Your task to perform on an android device: Open the stopwatch Image 0: 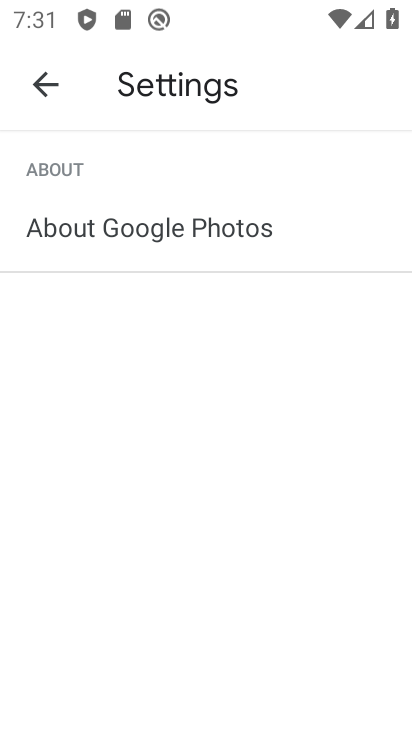
Step 0: press home button
Your task to perform on an android device: Open the stopwatch Image 1: 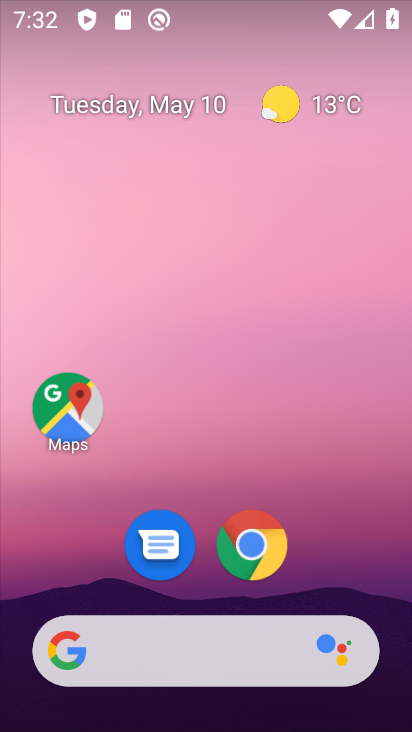
Step 1: drag from (197, 429) to (192, 231)
Your task to perform on an android device: Open the stopwatch Image 2: 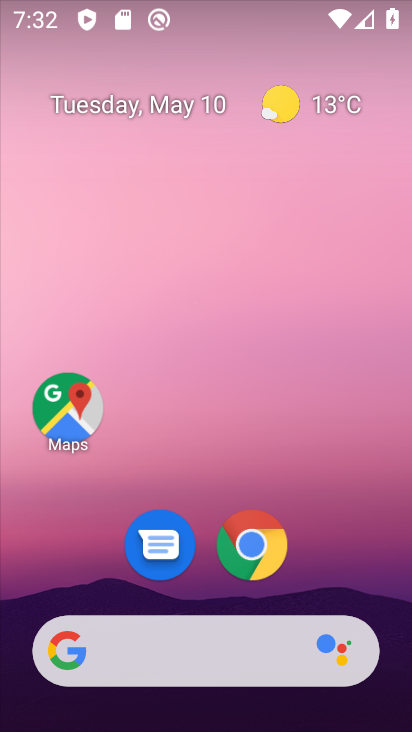
Step 2: drag from (208, 494) to (209, 36)
Your task to perform on an android device: Open the stopwatch Image 3: 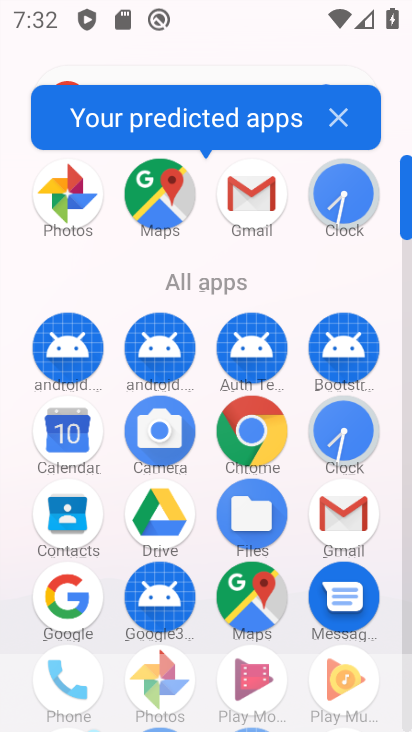
Step 3: click (343, 197)
Your task to perform on an android device: Open the stopwatch Image 4: 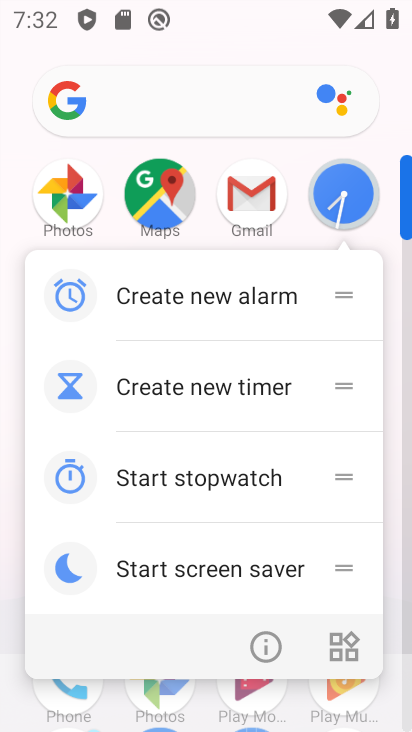
Step 4: click (348, 189)
Your task to perform on an android device: Open the stopwatch Image 5: 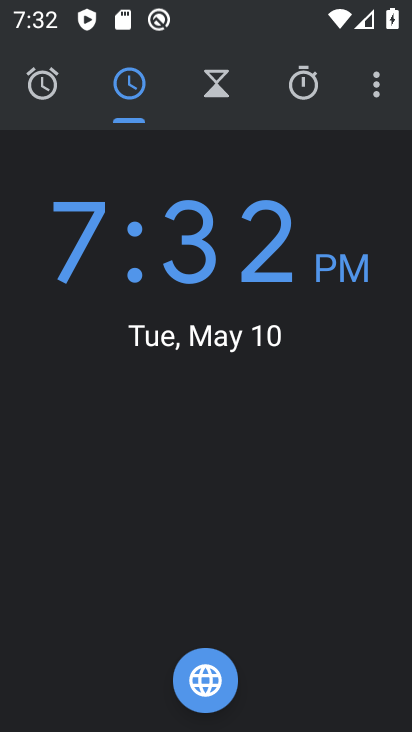
Step 5: click (301, 100)
Your task to perform on an android device: Open the stopwatch Image 6: 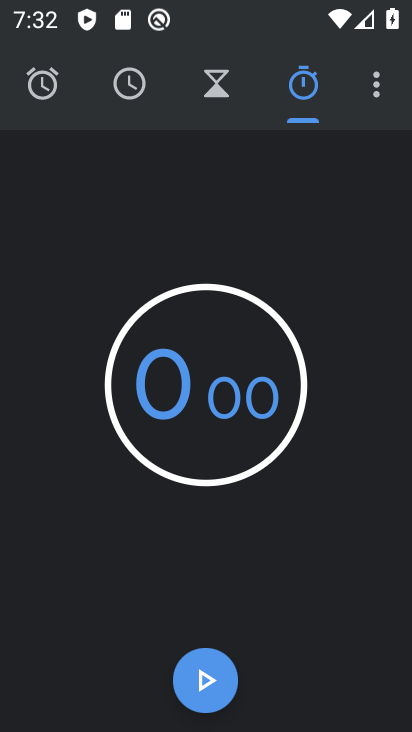
Step 6: click (204, 679)
Your task to perform on an android device: Open the stopwatch Image 7: 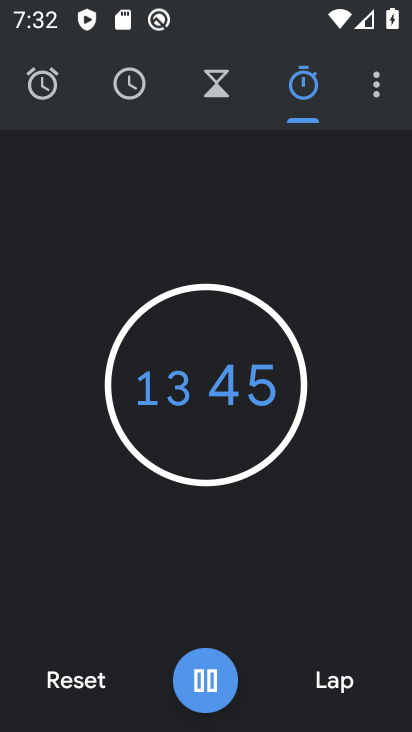
Step 7: click (71, 676)
Your task to perform on an android device: Open the stopwatch Image 8: 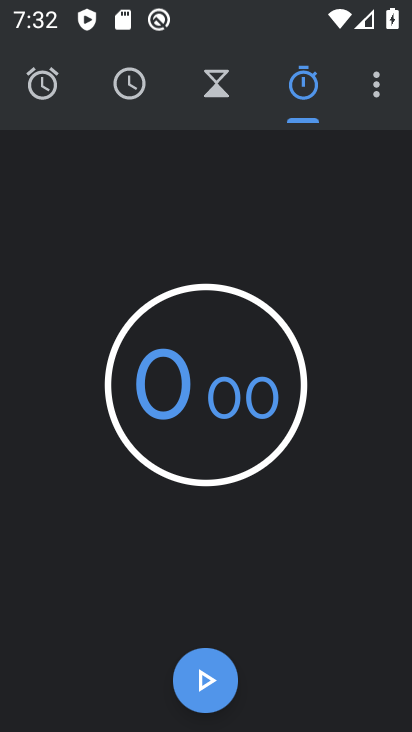
Step 8: task complete